Your task to perform on an android device: Search for Italian restaurants on Maps Image 0: 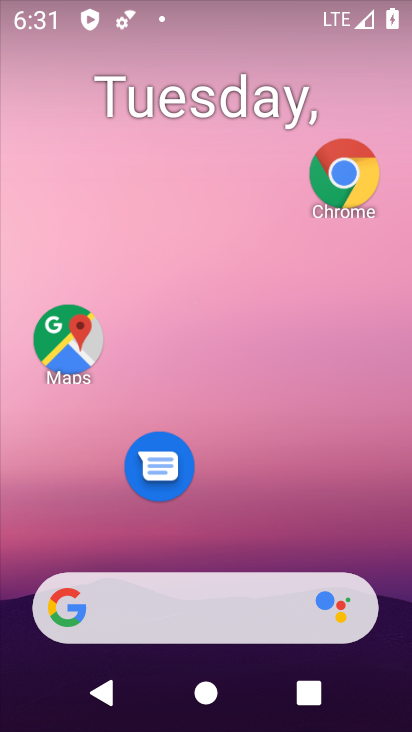
Step 0: click (331, 182)
Your task to perform on an android device: Search for Italian restaurants on Maps Image 1: 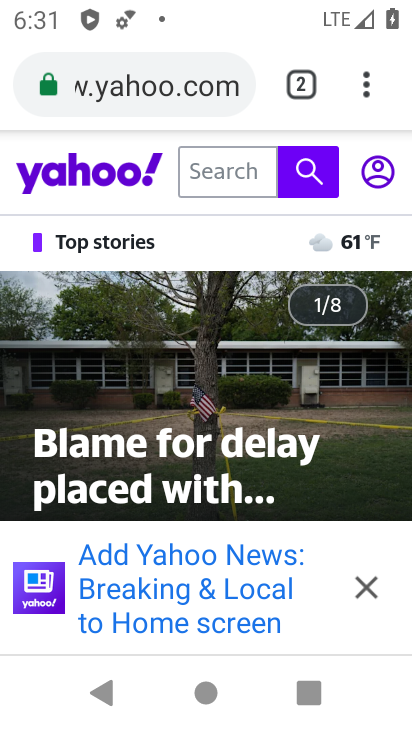
Step 1: click (208, 89)
Your task to perform on an android device: Search for Italian restaurants on Maps Image 2: 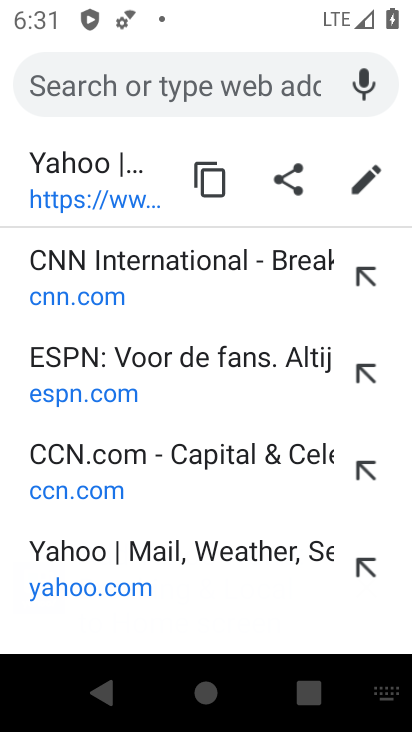
Step 2: press home button
Your task to perform on an android device: Search for Italian restaurants on Maps Image 3: 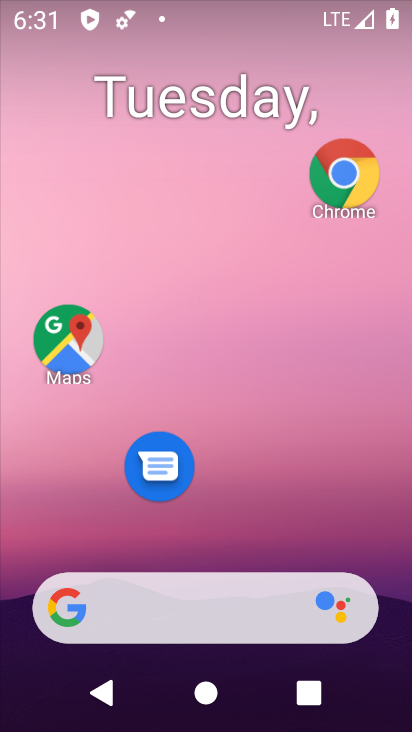
Step 3: click (57, 327)
Your task to perform on an android device: Search for Italian restaurants on Maps Image 4: 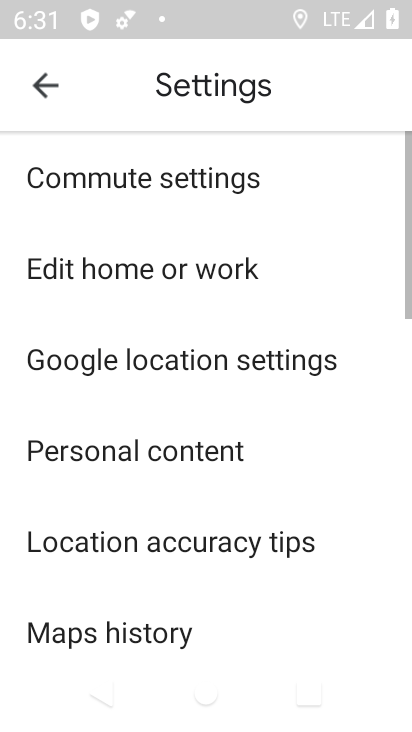
Step 4: click (46, 98)
Your task to perform on an android device: Search for Italian restaurants on Maps Image 5: 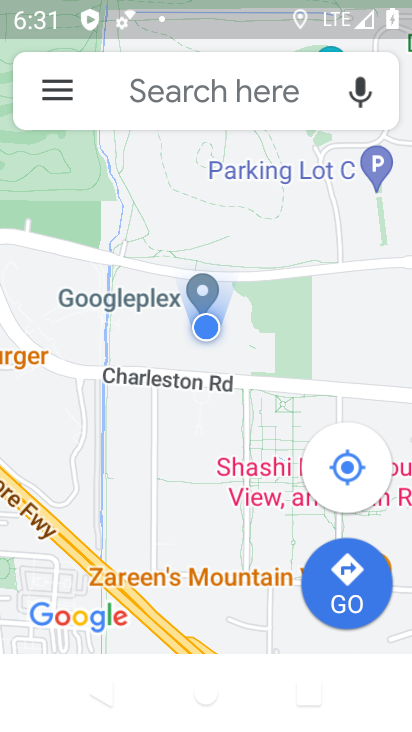
Step 5: click (116, 88)
Your task to perform on an android device: Search for Italian restaurants on Maps Image 6: 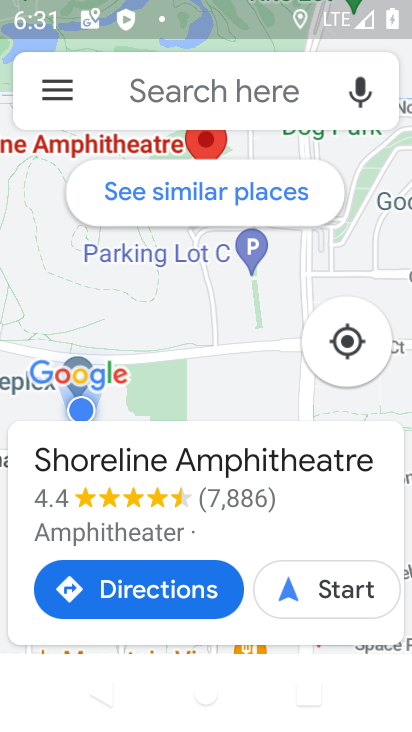
Step 6: click (148, 89)
Your task to perform on an android device: Search for Italian restaurants on Maps Image 7: 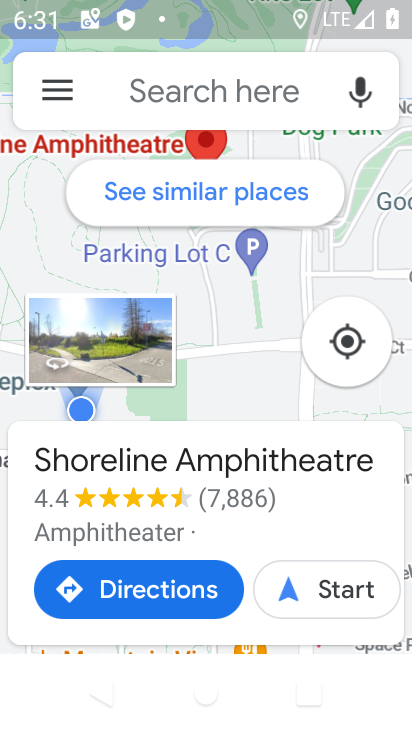
Step 7: click (148, 89)
Your task to perform on an android device: Search for Italian restaurants on Maps Image 8: 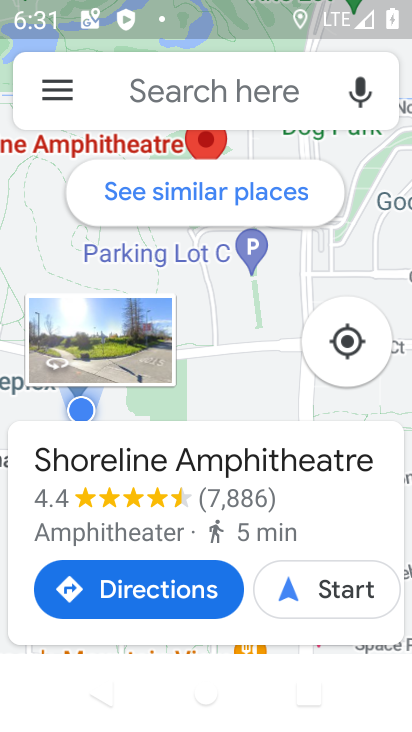
Step 8: click (148, 89)
Your task to perform on an android device: Search for Italian restaurants on Maps Image 9: 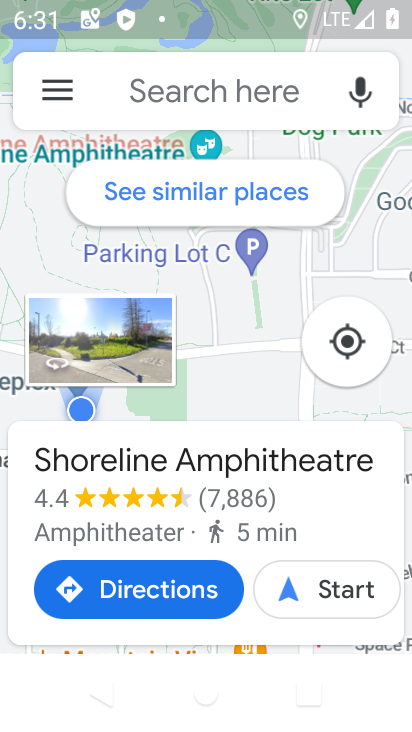
Step 9: click (148, 89)
Your task to perform on an android device: Search for Italian restaurants on Maps Image 10: 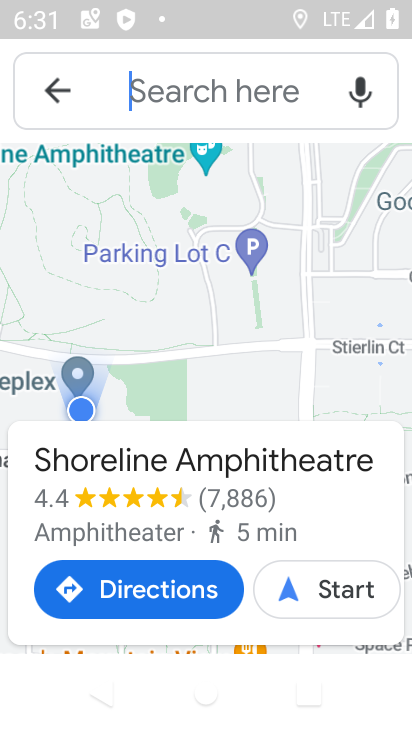
Step 10: click (148, 89)
Your task to perform on an android device: Search for Italian restaurants on Maps Image 11: 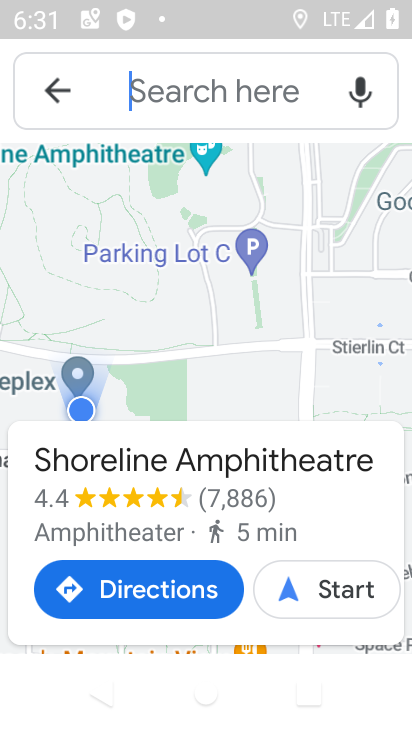
Step 11: click (148, 89)
Your task to perform on an android device: Search for Italian restaurants on Maps Image 12: 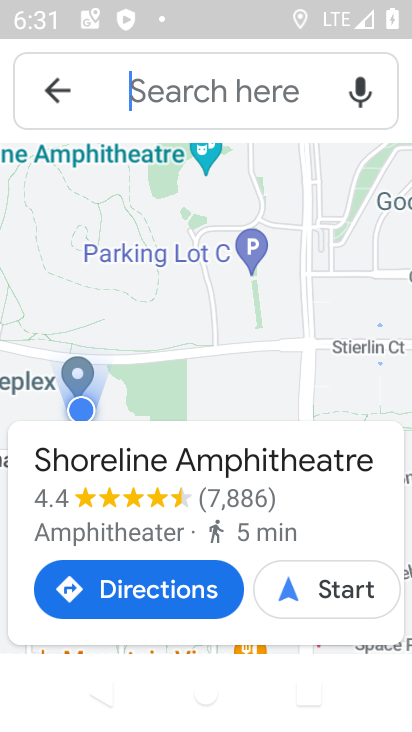
Step 12: click (148, 89)
Your task to perform on an android device: Search for Italian restaurants on Maps Image 13: 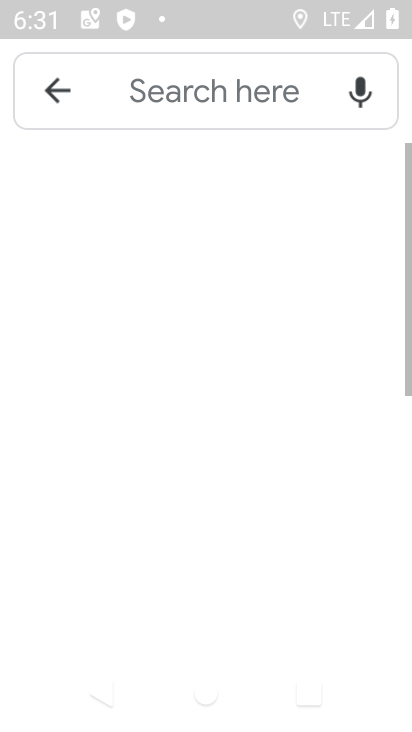
Step 13: click (148, 89)
Your task to perform on an android device: Search for Italian restaurants on Maps Image 14: 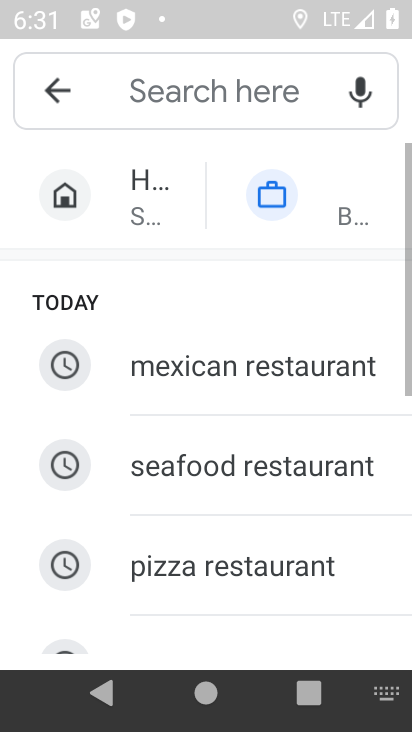
Step 14: click (148, 89)
Your task to perform on an android device: Search for Italian restaurants on Maps Image 15: 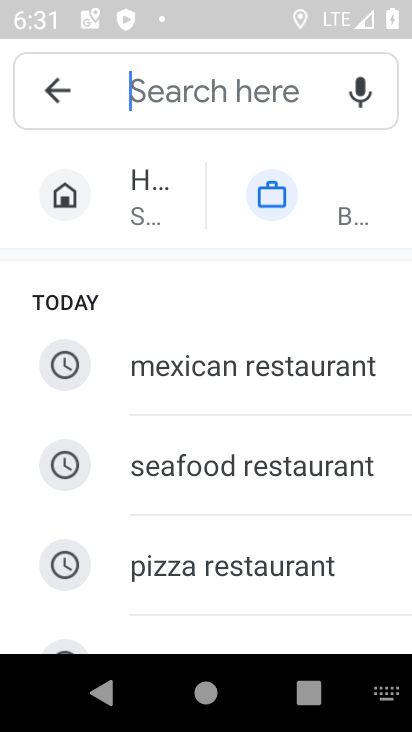
Step 15: type " Italian restaurants"
Your task to perform on an android device: Search for Italian restaurants on Maps Image 16: 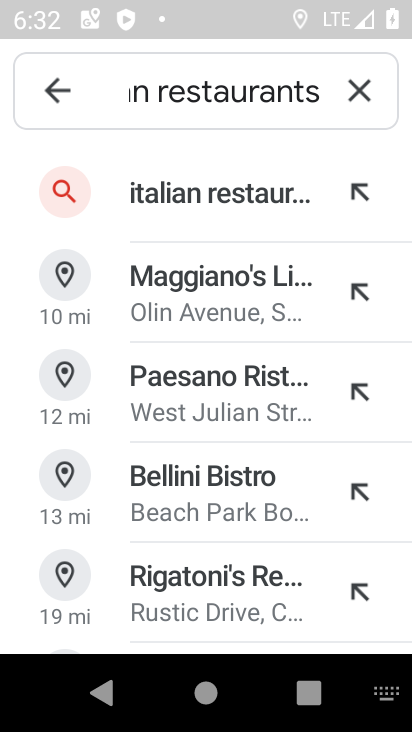
Step 16: click (172, 186)
Your task to perform on an android device: Search for Italian restaurants on Maps Image 17: 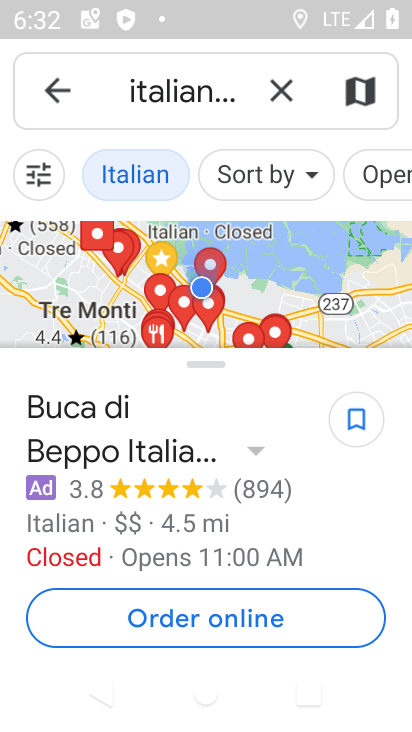
Step 17: task complete